Your task to perform on an android device: change the clock display to show seconds Image 0: 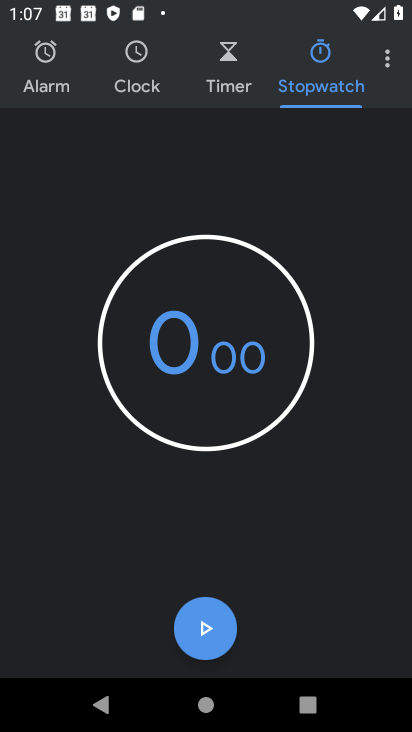
Step 0: press home button
Your task to perform on an android device: change the clock display to show seconds Image 1: 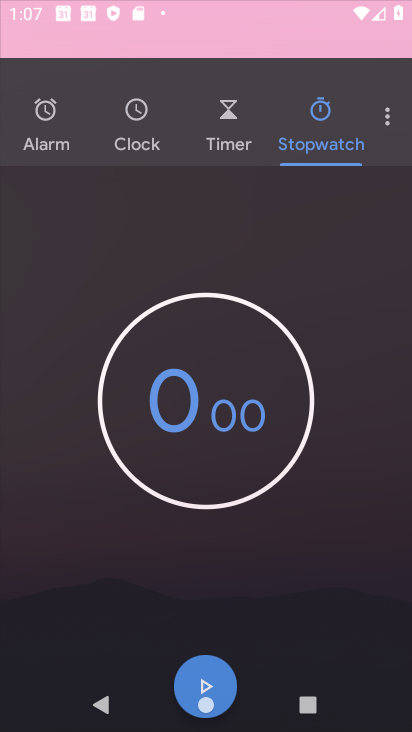
Step 1: drag from (359, 489) to (408, 34)
Your task to perform on an android device: change the clock display to show seconds Image 2: 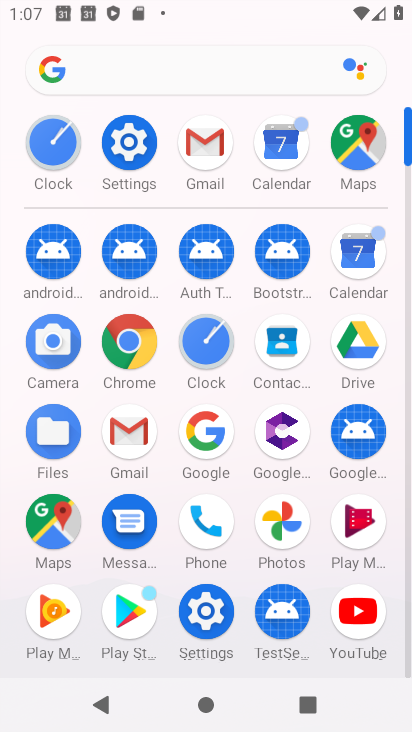
Step 2: click (183, 347)
Your task to perform on an android device: change the clock display to show seconds Image 3: 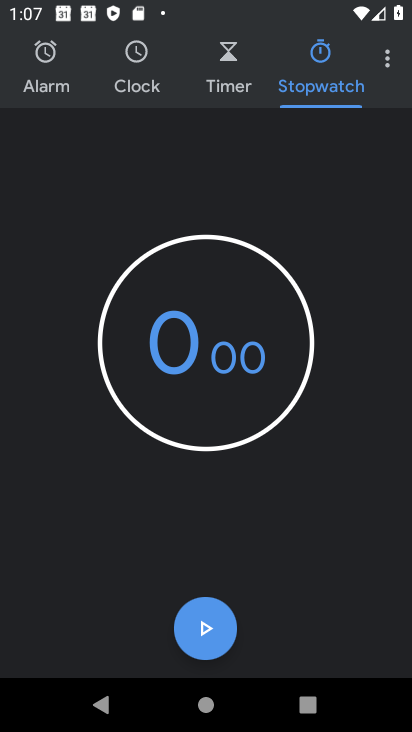
Step 3: click (394, 63)
Your task to perform on an android device: change the clock display to show seconds Image 4: 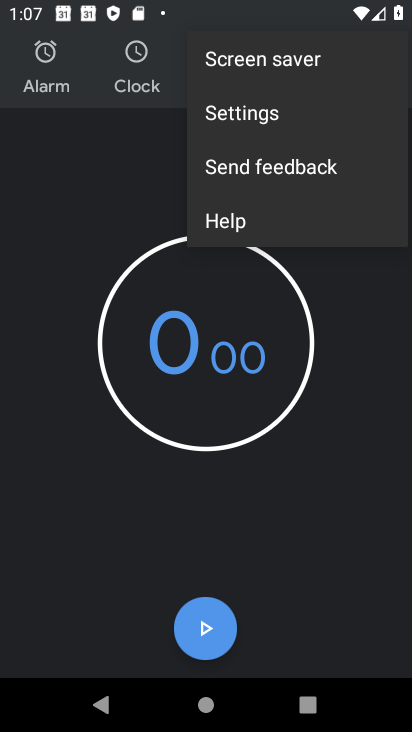
Step 4: click (282, 108)
Your task to perform on an android device: change the clock display to show seconds Image 5: 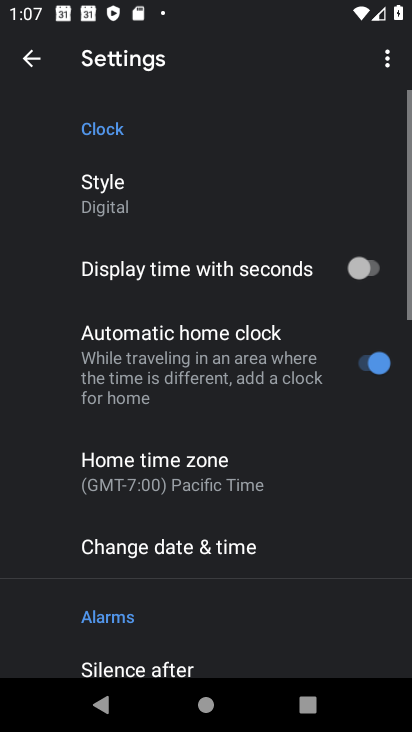
Step 5: click (335, 270)
Your task to perform on an android device: change the clock display to show seconds Image 6: 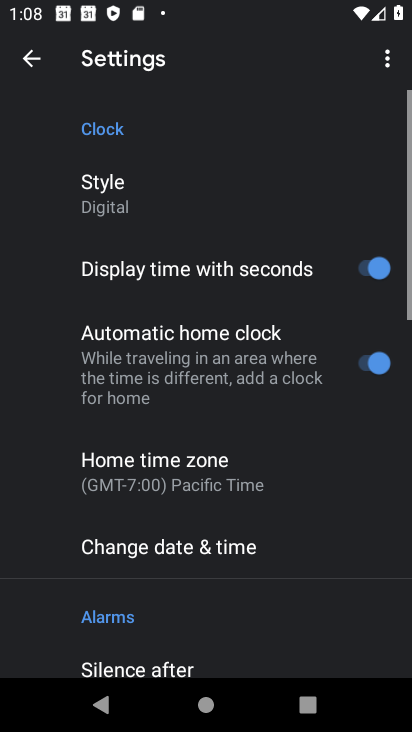
Step 6: task complete